Your task to perform on an android device: Search for seafood restaurants on Google Maps Image 0: 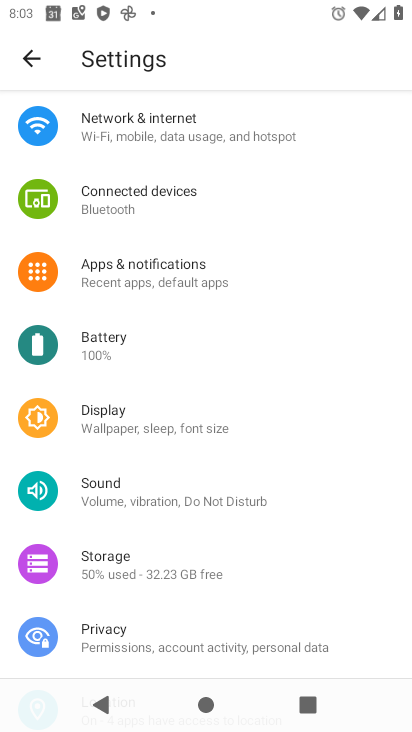
Step 0: press home button
Your task to perform on an android device: Search for seafood restaurants on Google Maps Image 1: 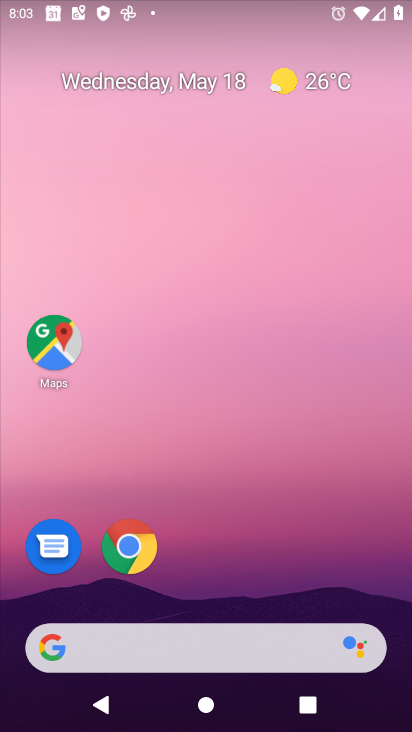
Step 1: drag from (338, 577) to (279, 20)
Your task to perform on an android device: Search for seafood restaurants on Google Maps Image 2: 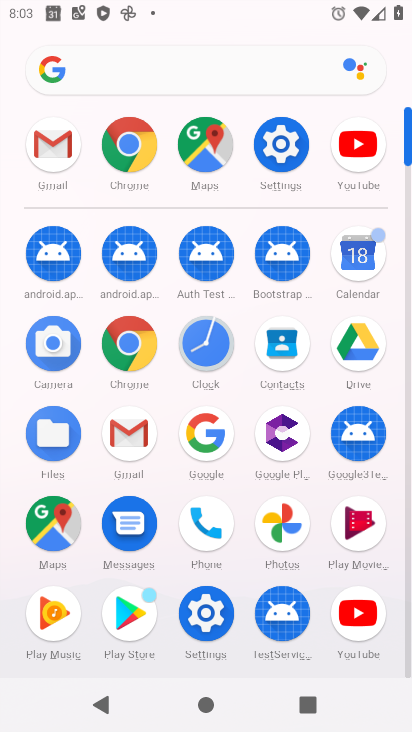
Step 2: click (205, 158)
Your task to perform on an android device: Search for seafood restaurants on Google Maps Image 3: 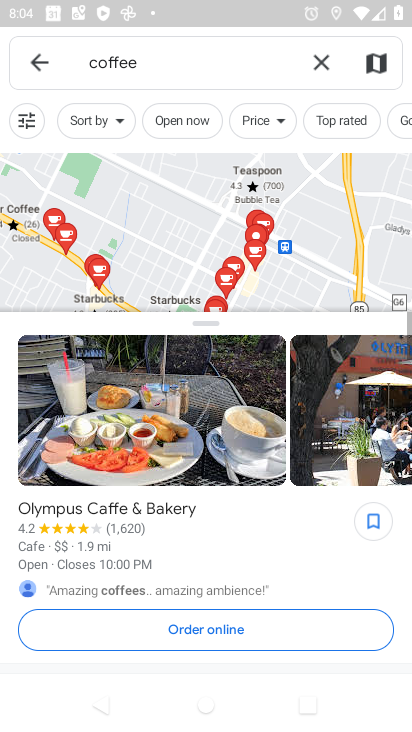
Step 3: click (322, 68)
Your task to perform on an android device: Search for seafood restaurants on Google Maps Image 4: 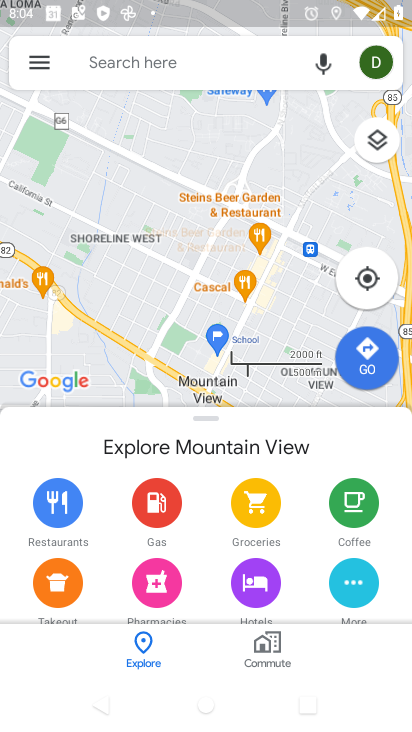
Step 4: click (150, 68)
Your task to perform on an android device: Search for seafood restaurants on Google Maps Image 5: 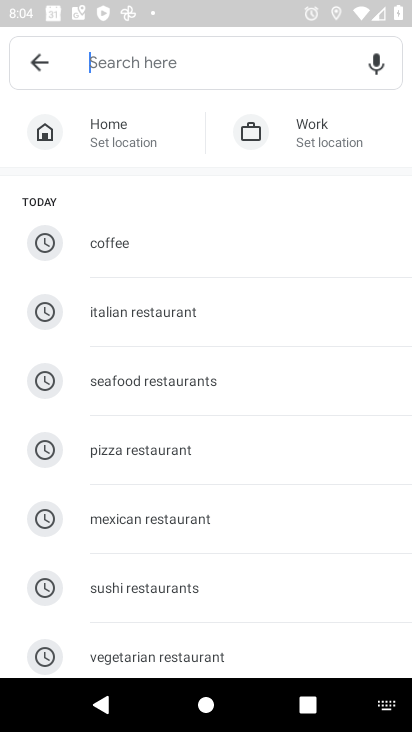
Step 5: click (196, 375)
Your task to perform on an android device: Search for seafood restaurants on Google Maps Image 6: 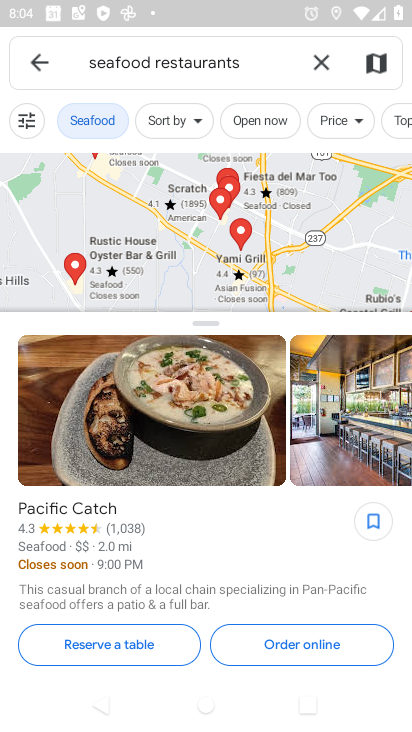
Step 6: task complete